Your task to perform on an android device: see creations saved in the google photos Image 0: 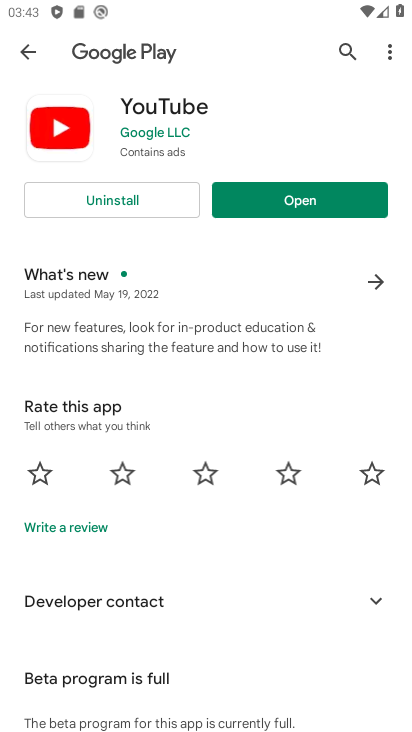
Step 0: press home button
Your task to perform on an android device: see creations saved in the google photos Image 1: 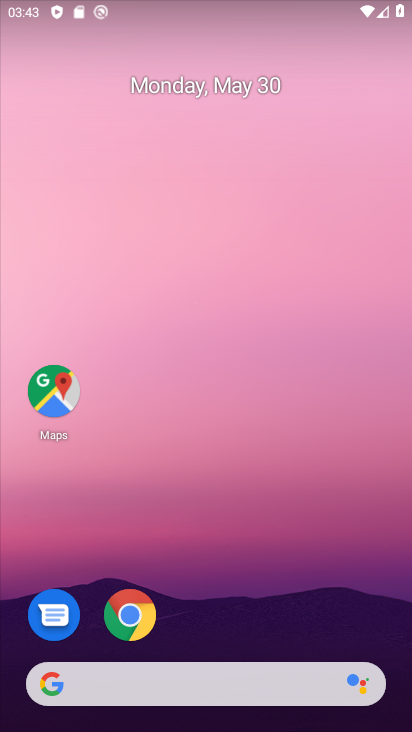
Step 1: drag from (282, 611) to (280, 4)
Your task to perform on an android device: see creations saved in the google photos Image 2: 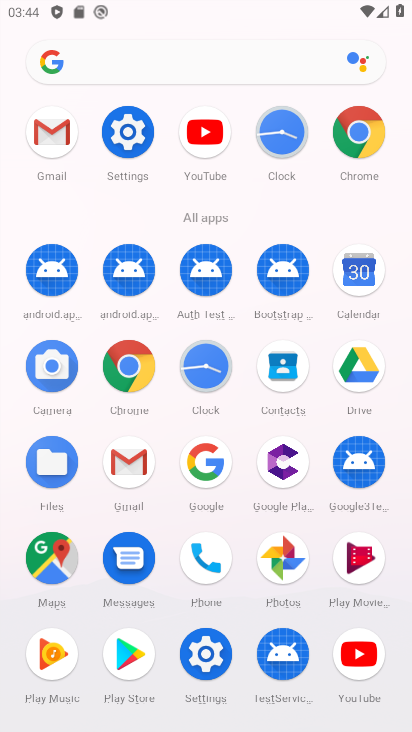
Step 2: drag from (236, 534) to (247, 312)
Your task to perform on an android device: see creations saved in the google photos Image 3: 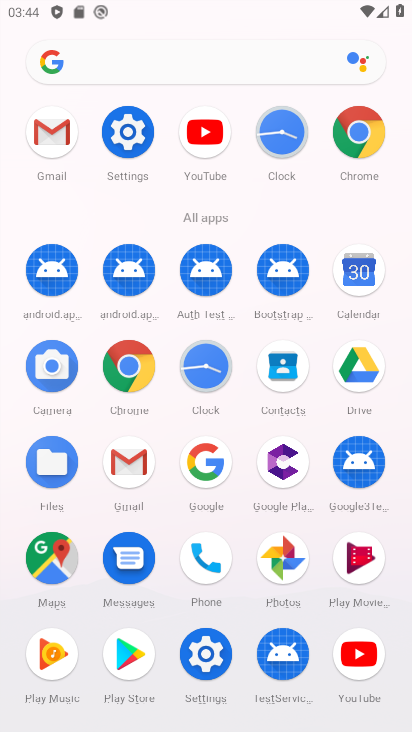
Step 3: click (284, 558)
Your task to perform on an android device: see creations saved in the google photos Image 4: 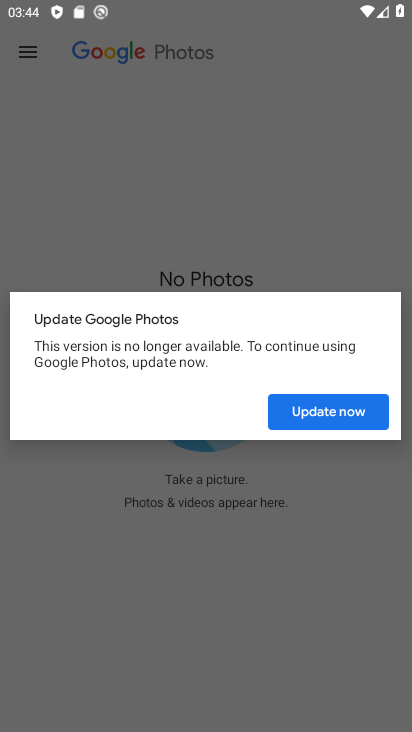
Step 4: click (324, 415)
Your task to perform on an android device: see creations saved in the google photos Image 5: 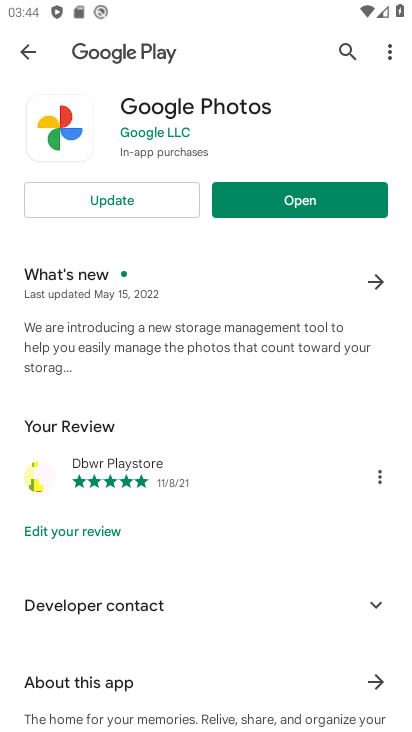
Step 5: click (131, 190)
Your task to perform on an android device: see creations saved in the google photos Image 6: 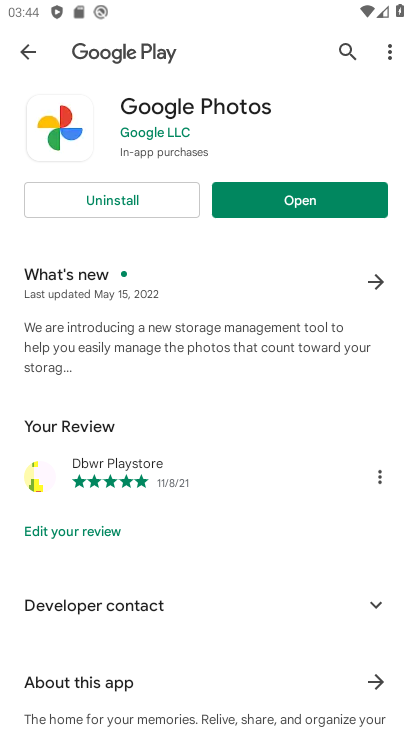
Step 6: click (278, 199)
Your task to perform on an android device: see creations saved in the google photos Image 7: 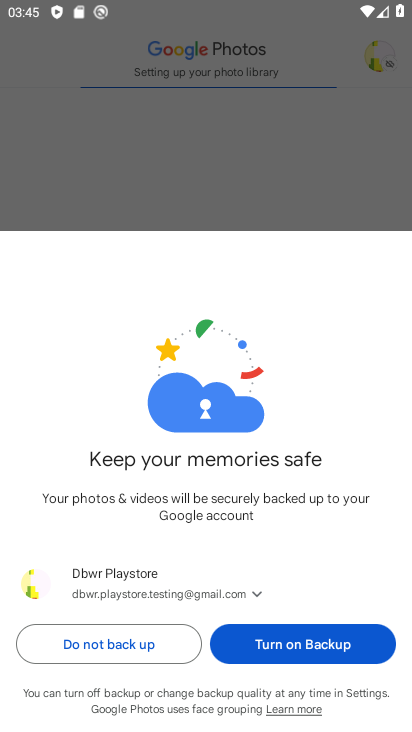
Step 7: click (257, 649)
Your task to perform on an android device: see creations saved in the google photos Image 8: 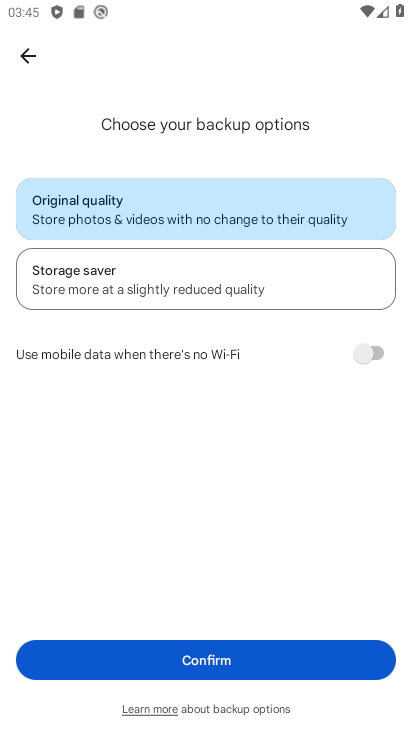
Step 8: click (262, 661)
Your task to perform on an android device: see creations saved in the google photos Image 9: 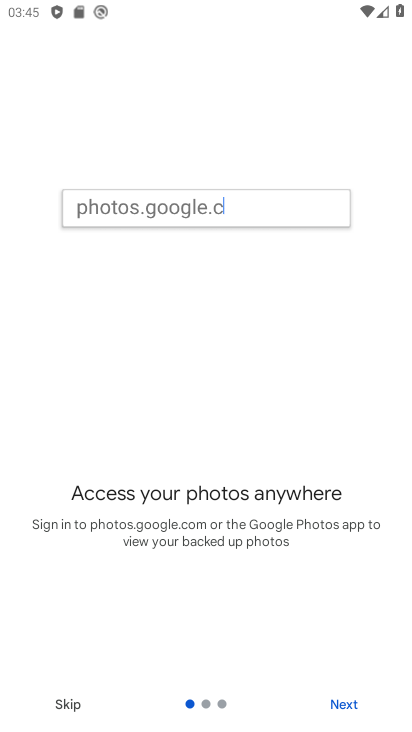
Step 9: click (344, 704)
Your task to perform on an android device: see creations saved in the google photos Image 10: 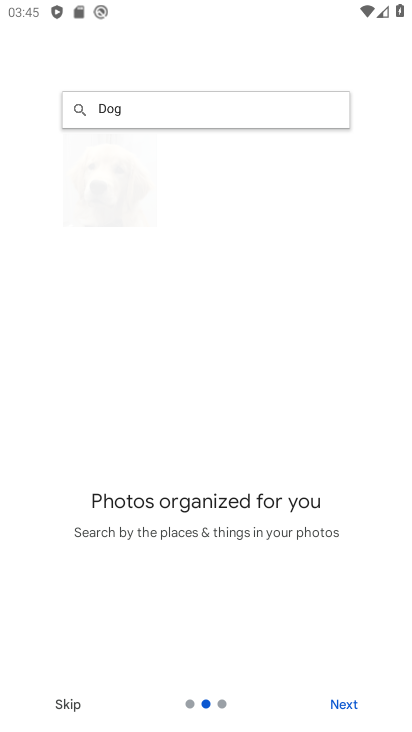
Step 10: click (344, 704)
Your task to perform on an android device: see creations saved in the google photos Image 11: 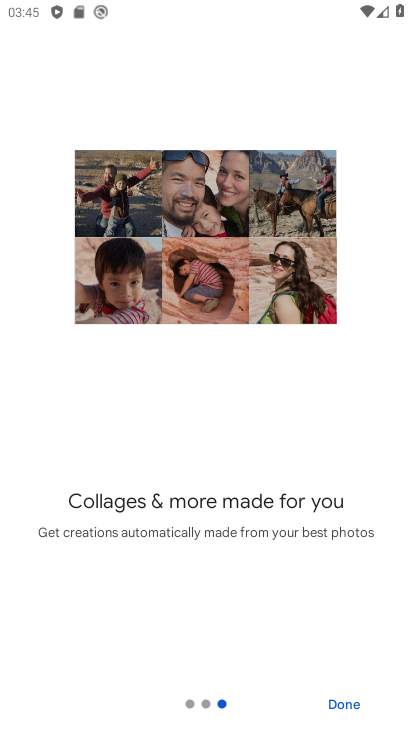
Step 11: click (344, 704)
Your task to perform on an android device: see creations saved in the google photos Image 12: 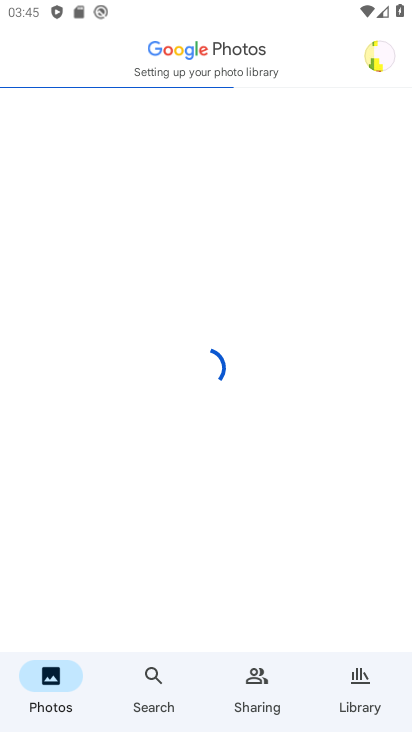
Step 12: click (386, 51)
Your task to perform on an android device: see creations saved in the google photos Image 13: 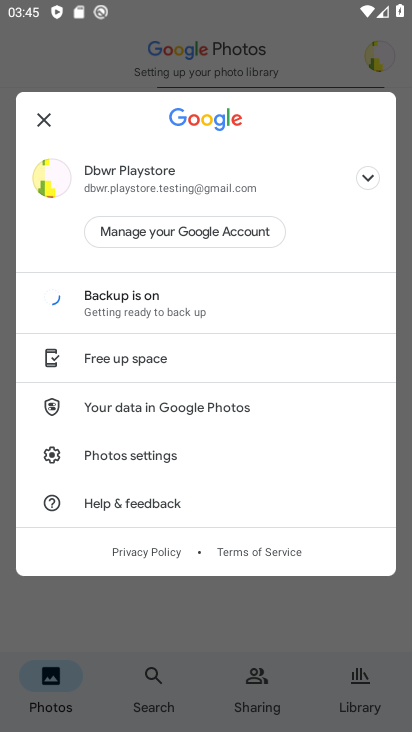
Step 13: drag from (162, 437) to (184, 354)
Your task to perform on an android device: see creations saved in the google photos Image 14: 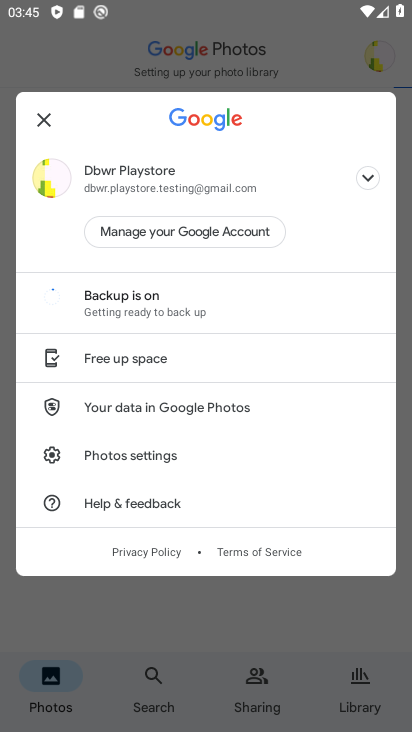
Step 14: click (135, 458)
Your task to perform on an android device: see creations saved in the google photos Image 15: 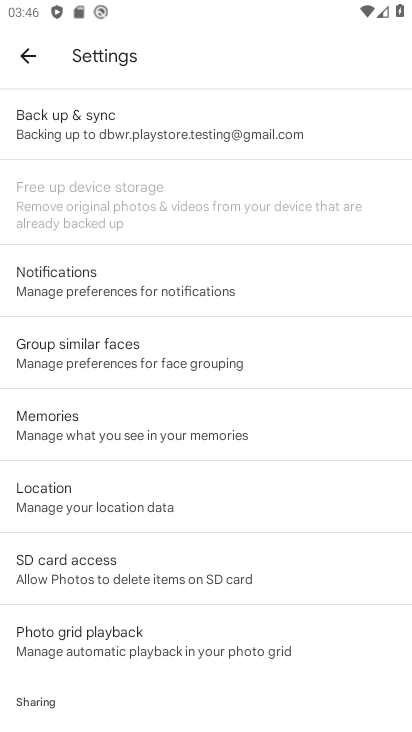
Step 15: task complete